Your task to perform on an android device: check android version Image 0: 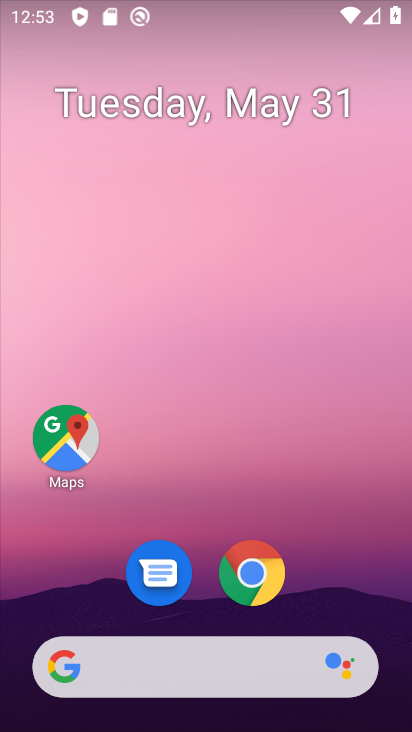
Step 0: drag from (344, 507) to (344, 151)
Your task to perform on an android device: check android version Image 1: 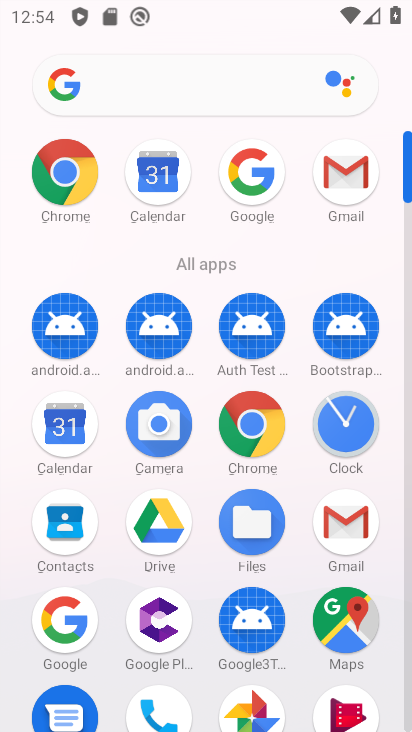
Step 1: drag from (194, 570) to (199, 306)
Your task to perform on an android device: check android version Image 2: 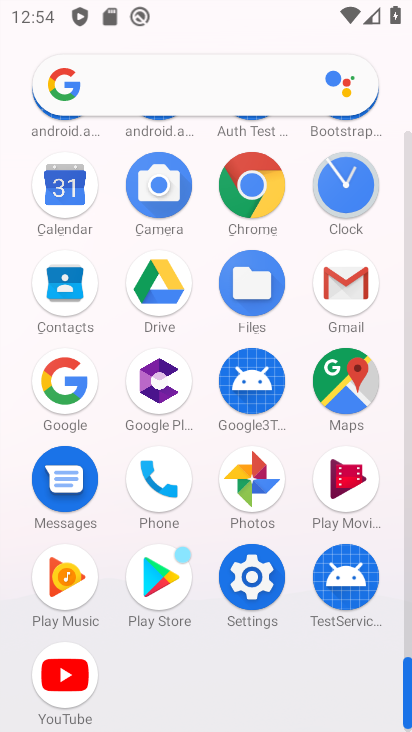
Step 2: click (259, 587)
Your task to perform on an android device: check android version Image 3: 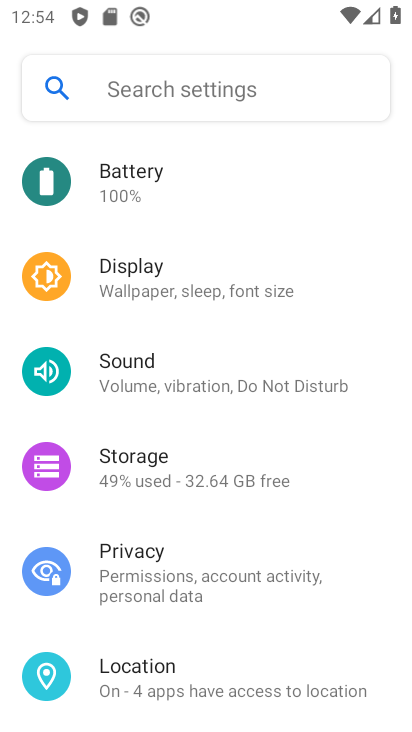
Step 3: drag from (359, 259) to (345, 441)
Your task to perform on an android device: check android version Image 4: 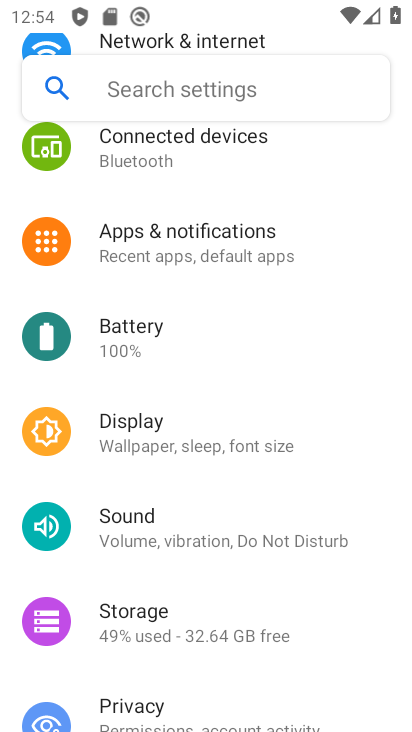
Step 4: drag from (329, 211) to (319, 429)
Your task to perform on an android device: check android version Image 5: 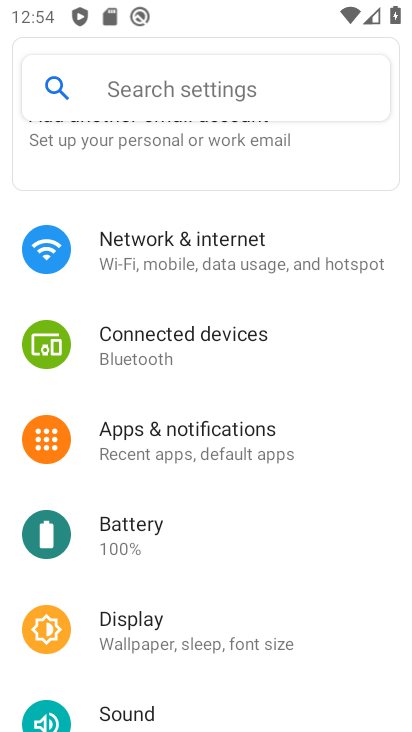
Step 5: drag from (330, 465) to (325, 328)
Your task to perform on an android device: check android version Image 6: 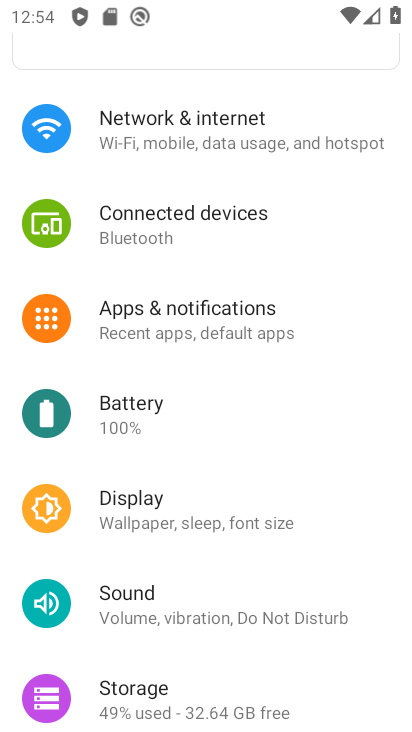
Step 6: drag from (336, 508) to (341, 372)
Your task to perform on an android device: check android version Image 7: 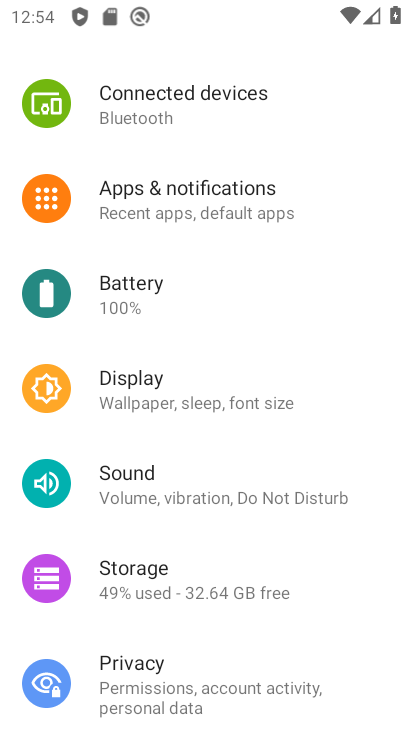
Step 7: drag from (334, 560) to (342, 404)
Your task to perform on an android device: check android version Image 8: 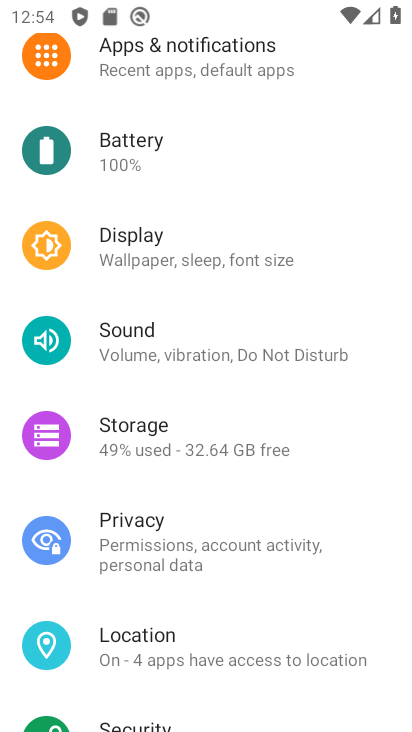
Step 8: drag from (338, 584) to (334, 458)
Your task to perform on an android device: check android version Image 9: 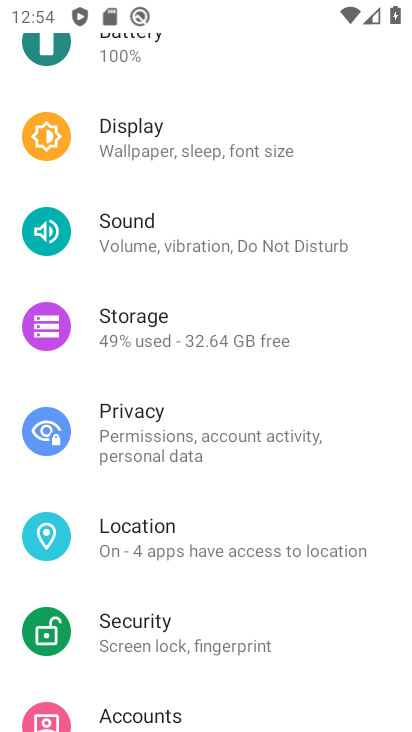
Step 9: drag from (306, 619) to (325, 392)
Your task to perform on an android device: check android version Image 10: 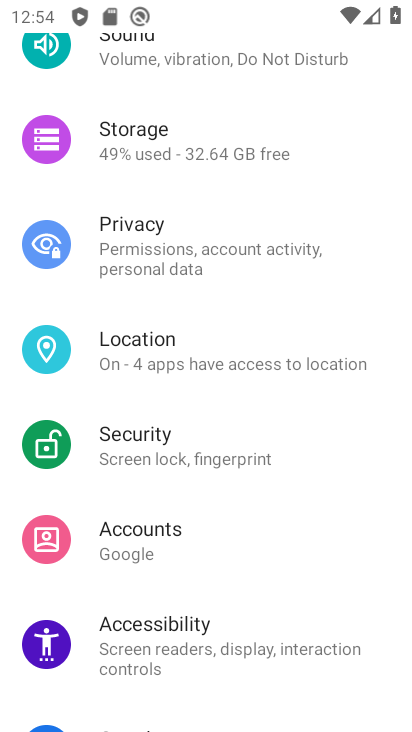
Step 10: drag from (325, 579) to (318, 399)
Your task to perform on an android device: check android version Image 11: 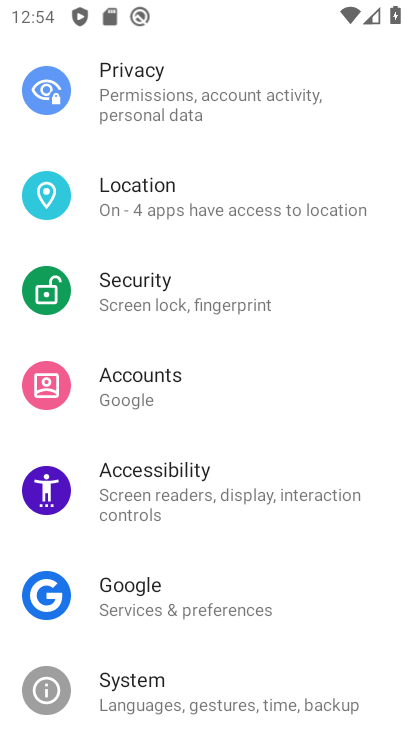
Step 11: drag from (307, 506) to (309, 435)
Your task to perform on an android device: check android version Image 12: 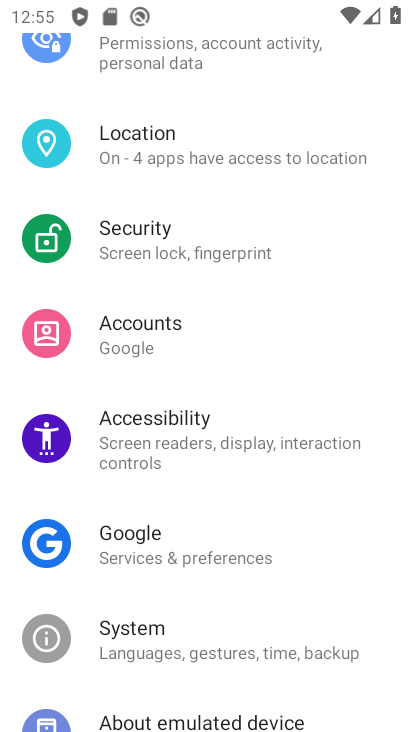
Step 12: drag from (305, 684) to (326, 488)
Your task to perform on an android device: check android version Image 13: 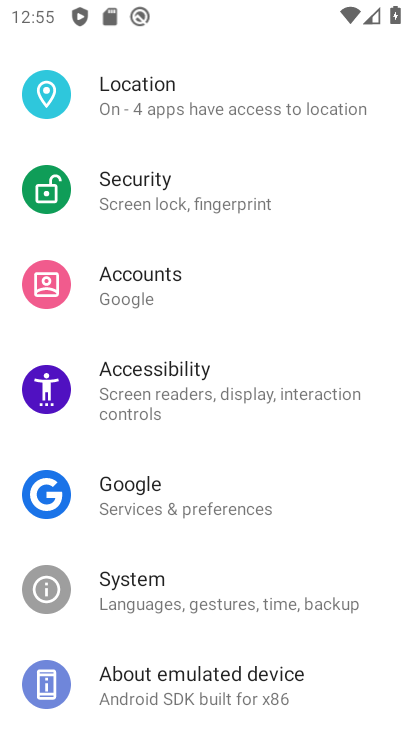
Step 13: click (230, 596)
Your task to perform on an android device: check android version Image 14: 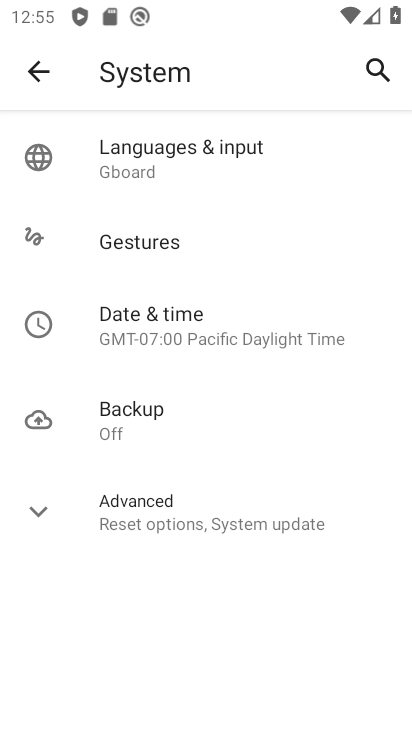
Step 14: click (229, 505)
Your task to perform on an android device: check android version Image 15: 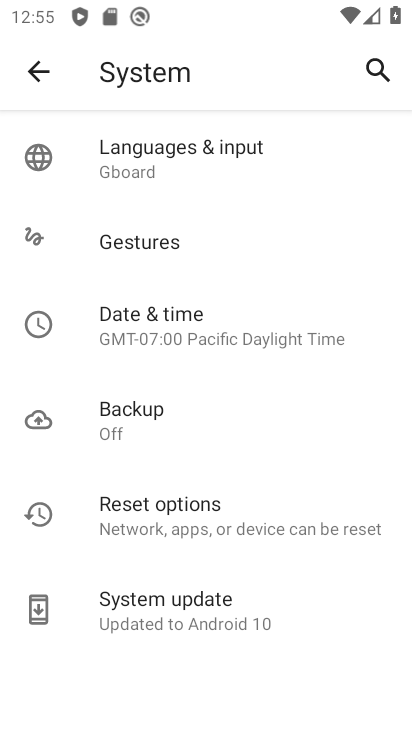
Step 15: click (239, 602)
Your task to perform on an android device: check android version Image 16: 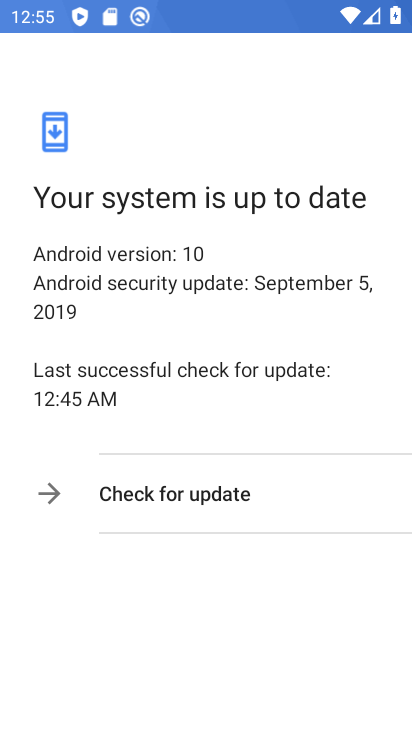
Step 16: task complete